Your task to perform on an android device: turn on sleep mode Image 0: 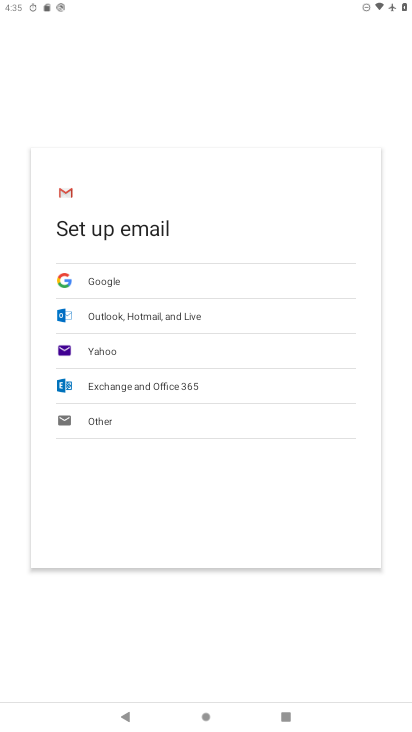
Step 0: press home button
Your task to perform on an android device: turn on sleep mode Image 1: 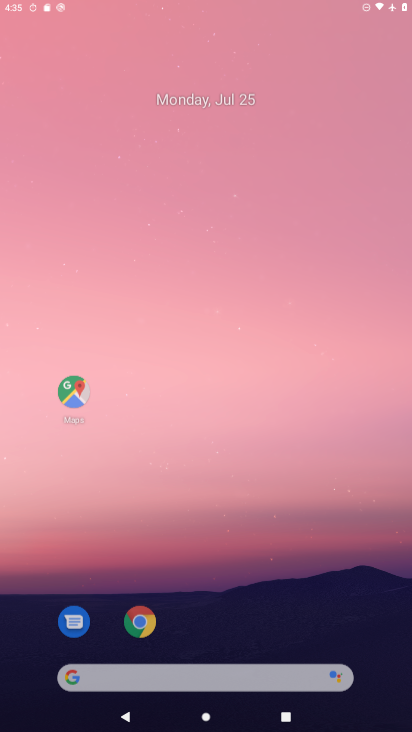
Step 1: drag from (259, 167) to (225, 4)
Your task to perform on an android device: turn on sleep mode Image 2: 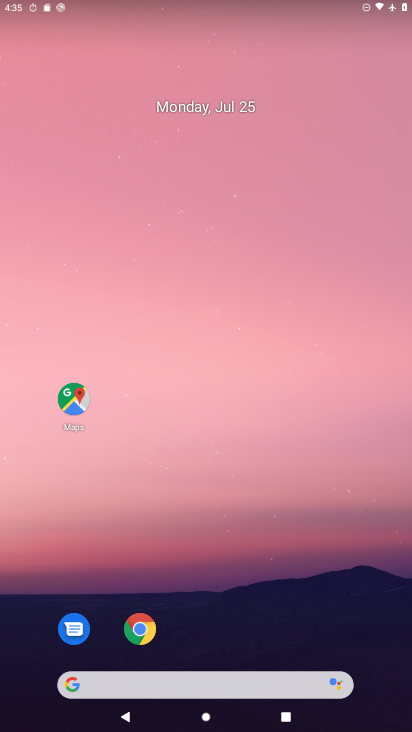
Step 2: drag from (212, 667) to (221, 14)
Your task to perform on an android device: turn on sleep mode Image 3: 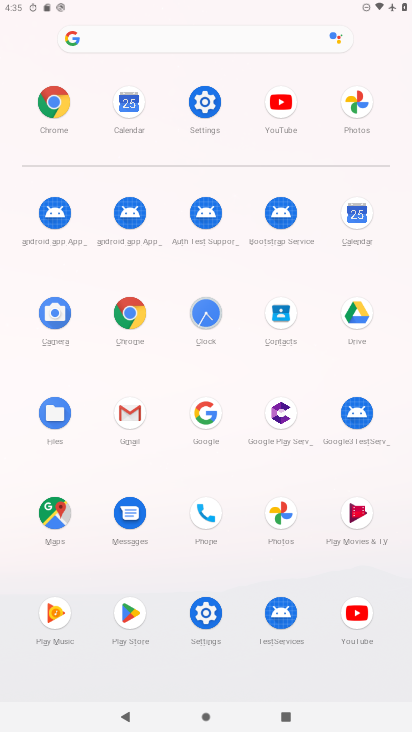
Step 3: click (205, 92)
Your task to perform on an android device: turn on sleep mode Image 4: 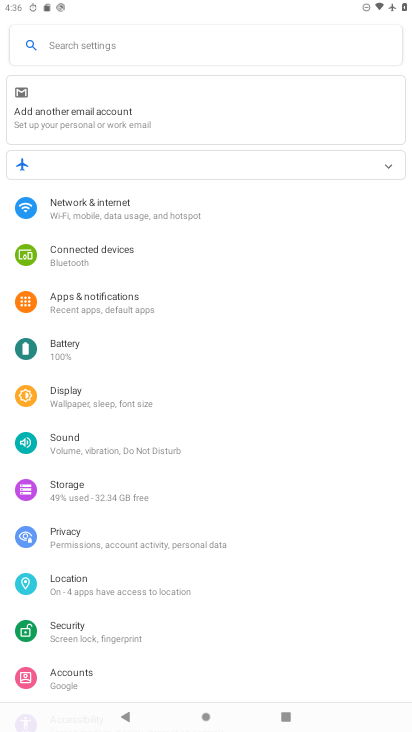
Step 4: click (112, 402)
Your task to perform on an android device: turn on sleep mode Image 5: 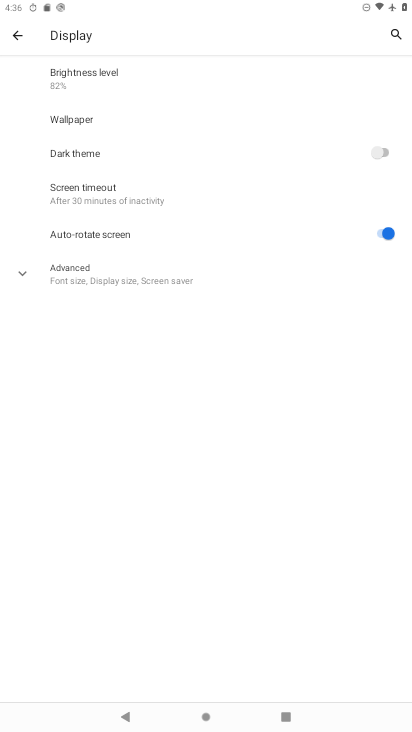
Step 5: task complete